Your task to perform on an android device: Open privacy settings Image 0: 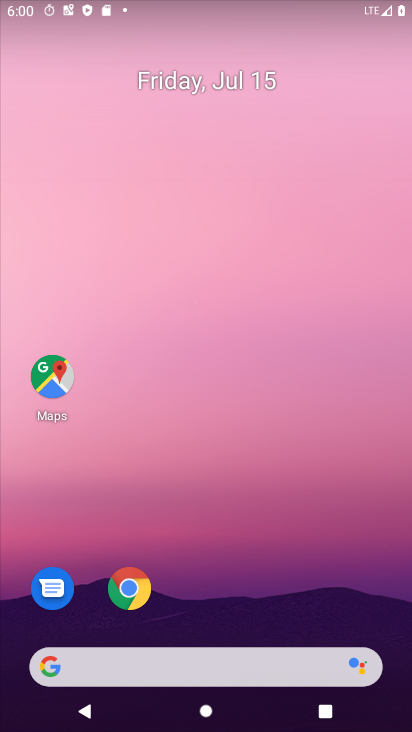
Step 0: drag from (295, 631) to (272, 15)
Your task to perform on an android device: Open privacy settings Image 1: 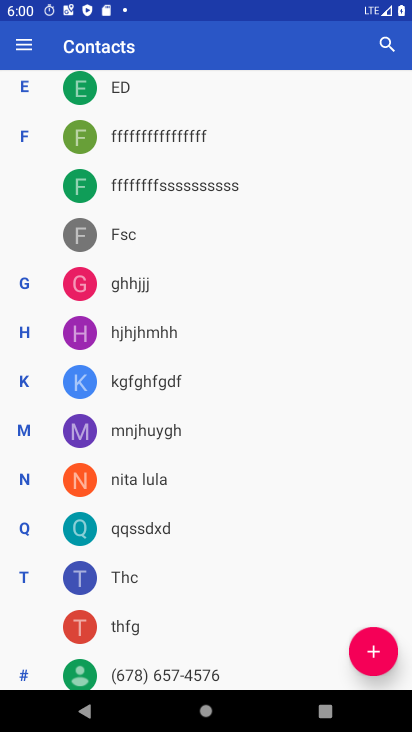
Step 1: task complete